Your task to perform on an android device: What's the weather going to be this weekend? Image 0: 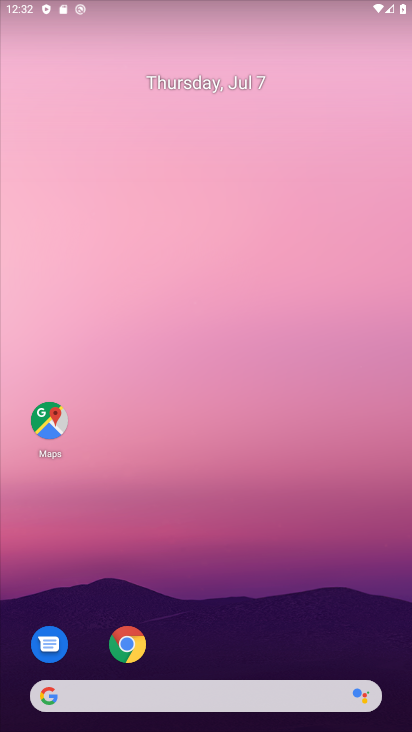
Step 0: drag from (128, 463) to (299, 256)
Your task to perform on an android device: What's the weather going to be this weekend? Image 1: 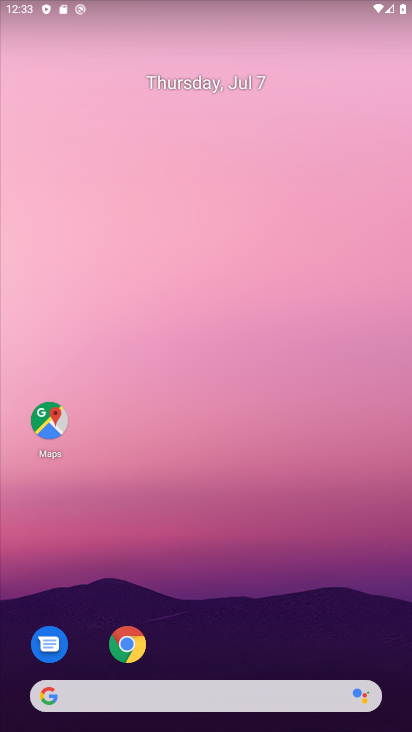
Step 1: drag from (20, 699) to (411, 323)
Your task to perform on an android device: What's the weather going to be this weekend? Image 2: 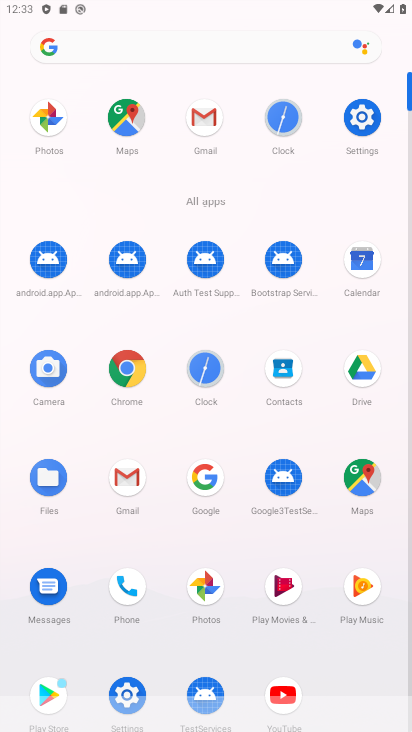
Step 2: click (103, 42)
Your task to perform on an android device: What's the weather going to be this weekend? Image 3: 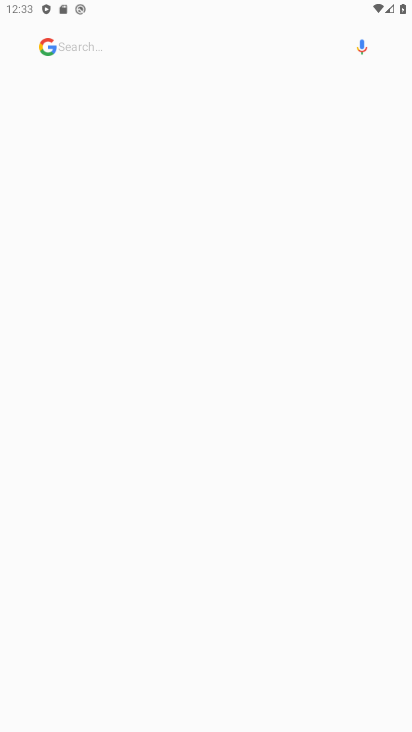
Step 3: click (123, 46)
Your task to perform on an android device: What's the weather going to be this weekend? Image 4: 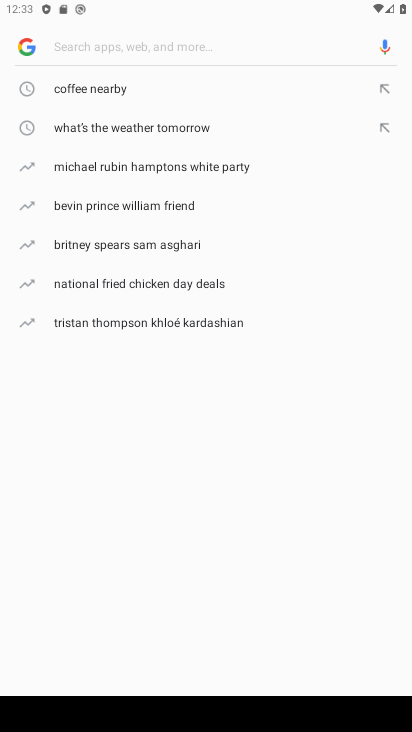
Step 4: type "What's the weather going to be this weekend?"
Your task to perform on an android device: What's the weather going to be this weekend? Image 5: 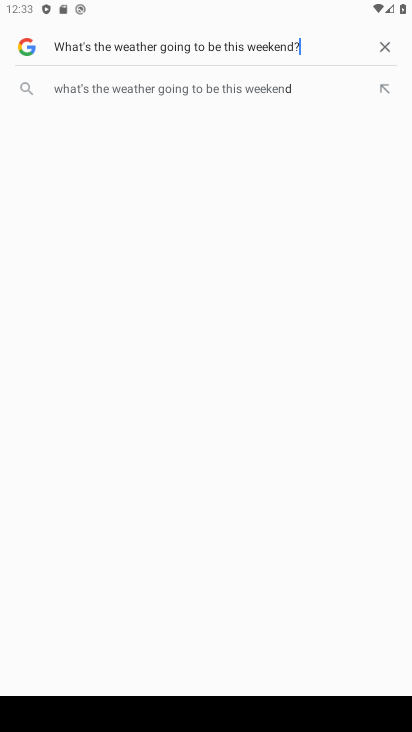
Step 5: type ""
Your task to perform on an android device: What's the weather going to be this weekend? Image 6: 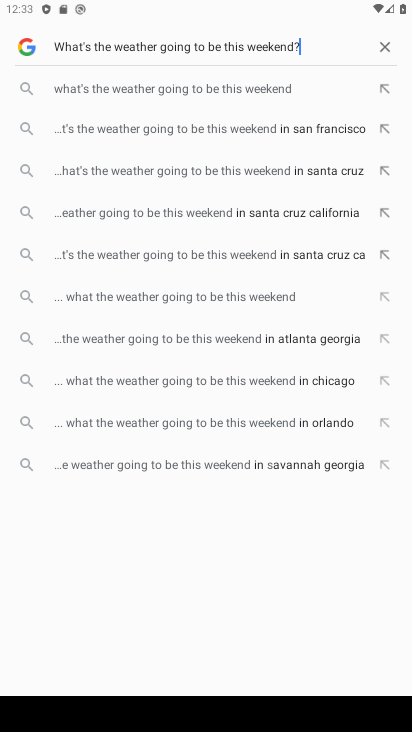
Step 6: click (241, 84)
Your task to perform on an android device: What's the weather going to be this weekend? Image 7: 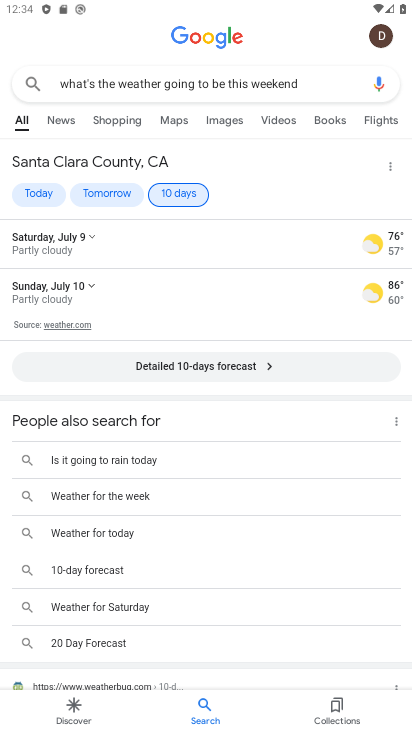
Step 7: task complete